Your task to perform on an android device: Open the stopwatch Image 0: 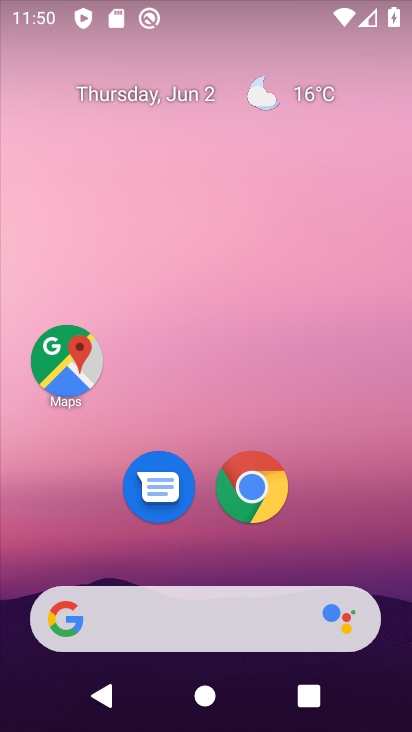
Step 0: drag from (312, 231) to (312, 93)
Your task to perform on an android device: Open the stopwatch Image 1: 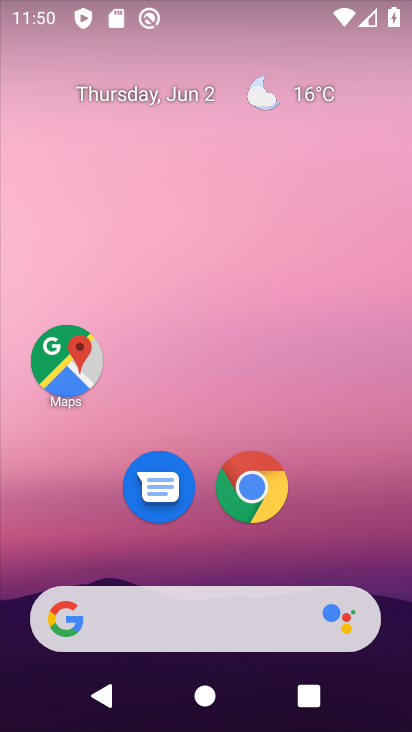
Step 1: drag from (332, 335) to (335, 0)
Your task to perform on an android device: Open the stopwatch Image 2: 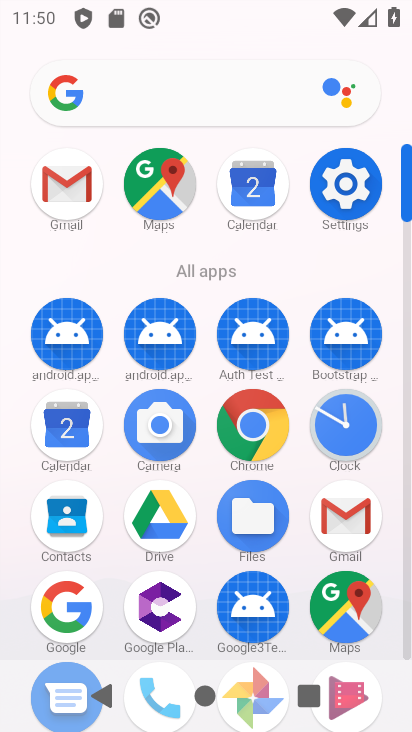
Step 2: click (340, 413)
Your task to perform on an android device: Open the stopwatch Image 3: 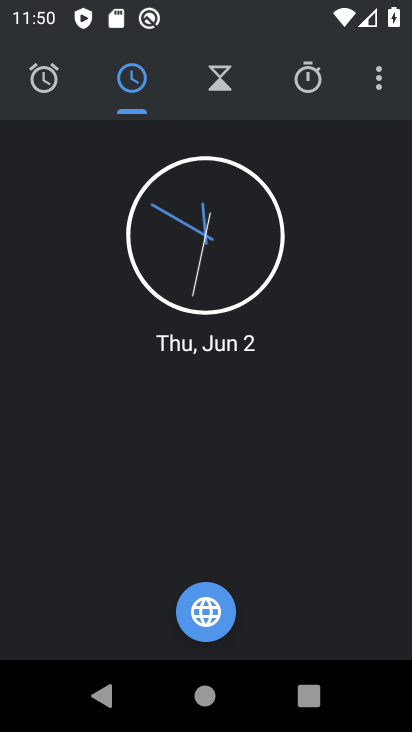
Step 3: click (297, 81)
Your task to perform on an android device: Open the stopwatch Image 4: 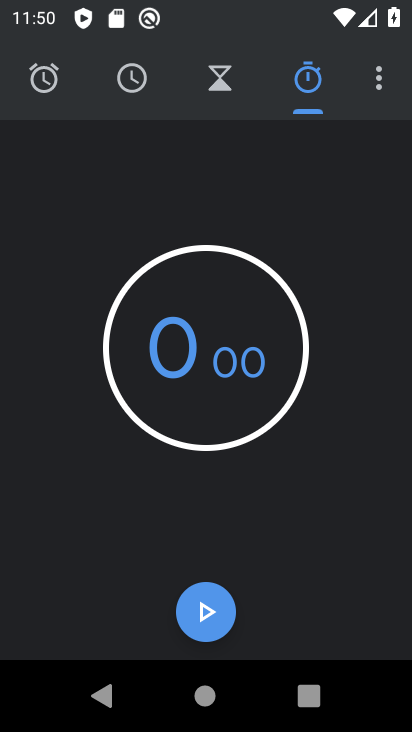
Step 4: task complete